Your task to perform on an android device: Open location settings Image 0: 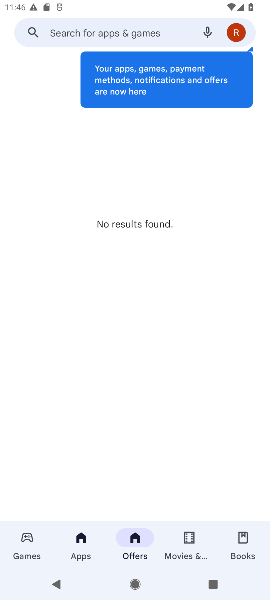
Step 0: press home button
Your task to perform on an android device: Open location settings Image 1: 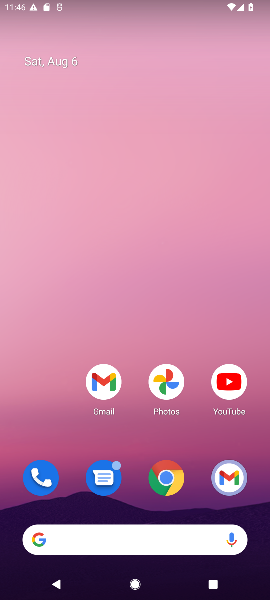
Step 1: drag from (128, 533) to (200, 76)
Your task to perform on an android device: Open location settings Image 2: 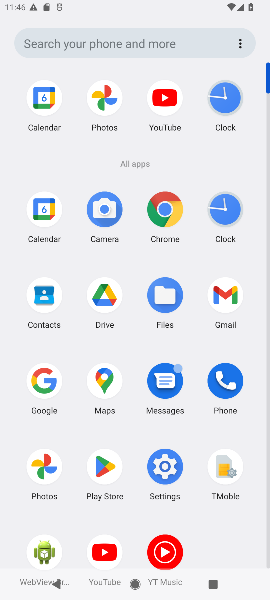
Step 2: click (163, 461)
Your task to perform on an android device: Open location settings Image 3: 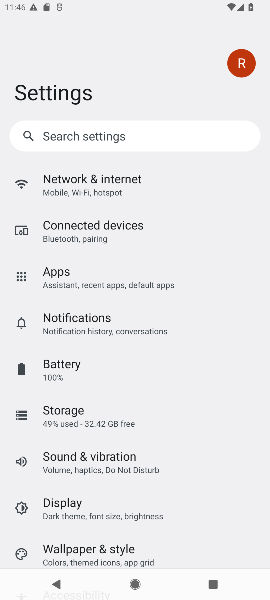
Step 3: drag from (76, 554) to (98, 265)
Your task to perform on an android device: Open location settings Image 4: 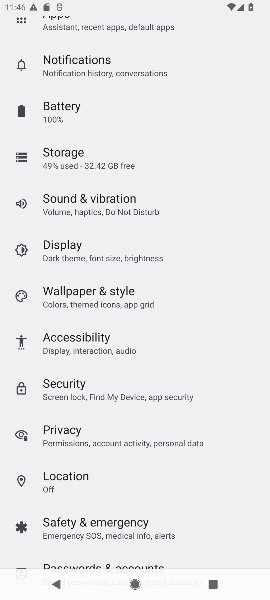
Step 4: click (60, 484)
Your task to perform on an android device: Open location settings Image 5: 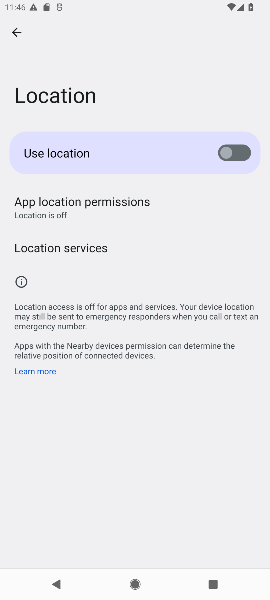
Step 5: click (37, 247)
Your task to perform on an android device: Open location settings Image 6: 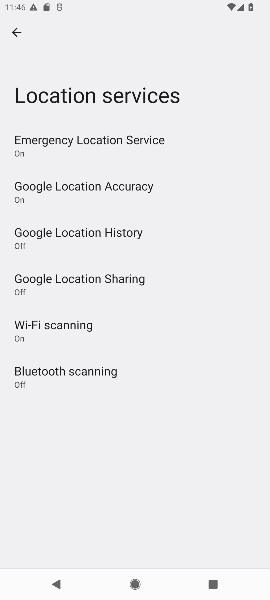
Step 6: task complete